Your task to perform on an android device: turn off location history Image 0: 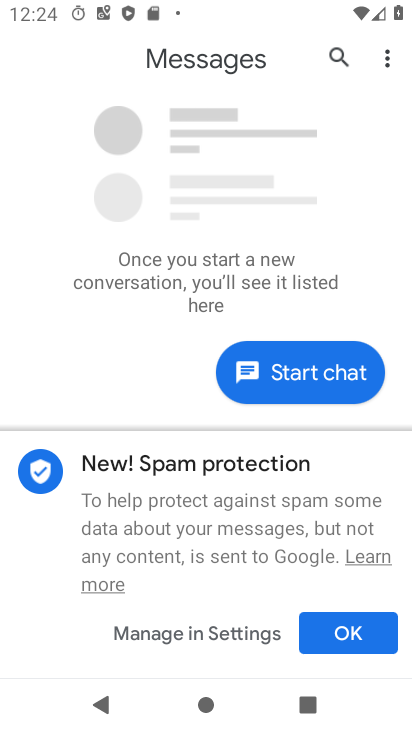
Step 0: press home button
Your task to perform on an android device: turn off location history Image 1: 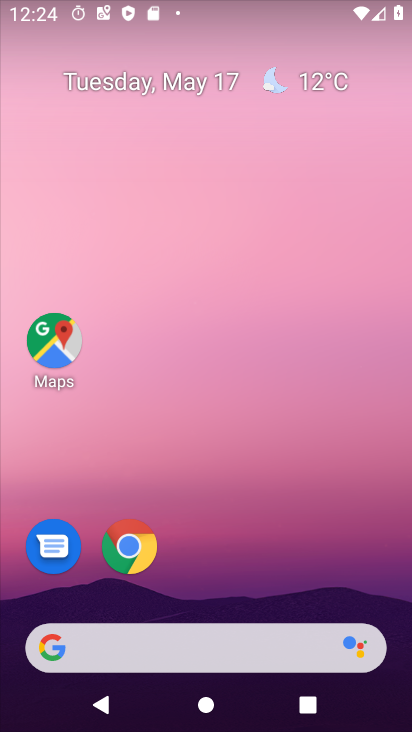
Step 1: click (66, 358)
Your task to perform on an android device: turn off location history Image 2: 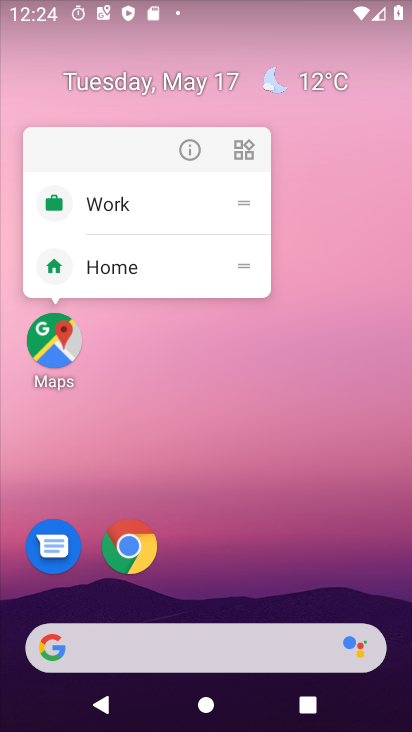
Step 2: click (55, 345)
Your task to perform on an android device: turn off location history Image 3: 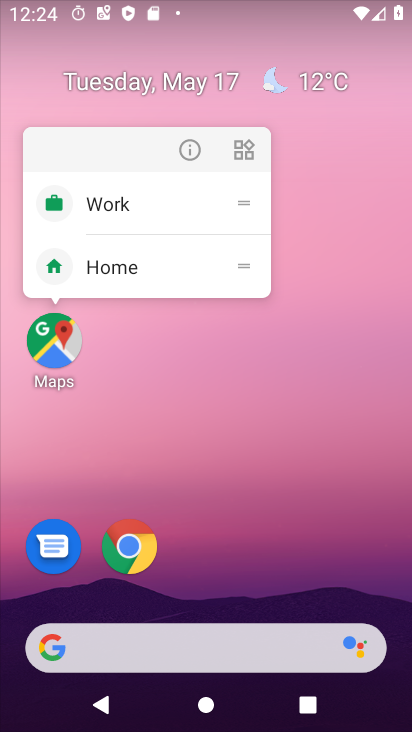
Step 3: click (50, 351)
Your task to perform on an android device: turn off location history Image 4: 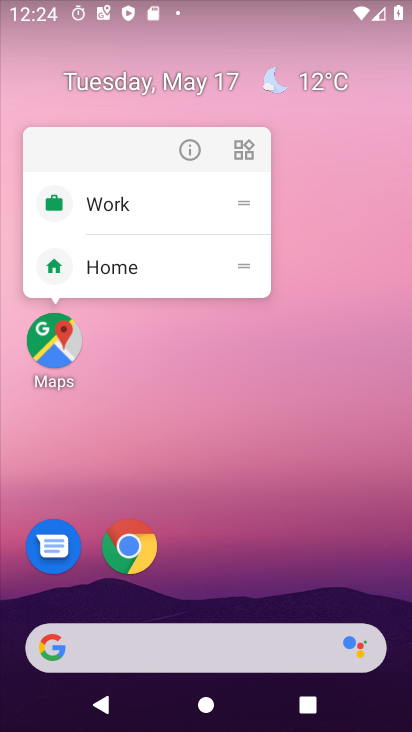
Step 4: click (57, 352)
Your task to perform on an android device: turn off location history Image 5: 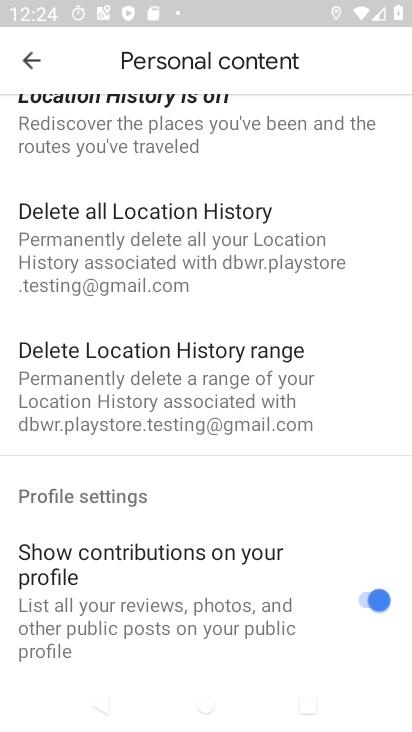
Step 5: drag from (310, 232) to (152, 603)
Your task to perform on an android device: turn off location history Image 6: 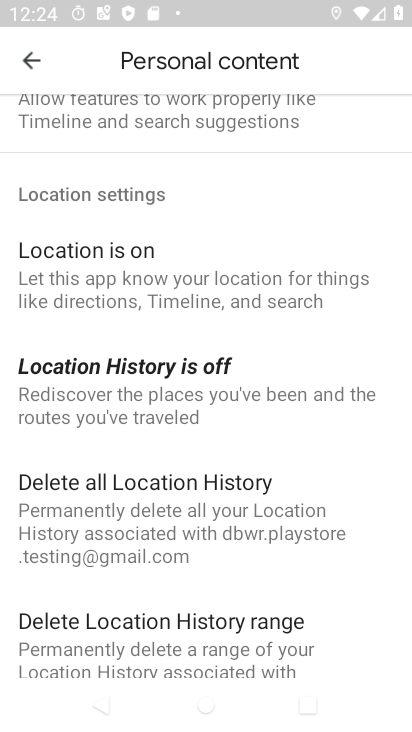
Step 6: click (107, 389)
Your task to perform on an android device: turn off location history Image 7: 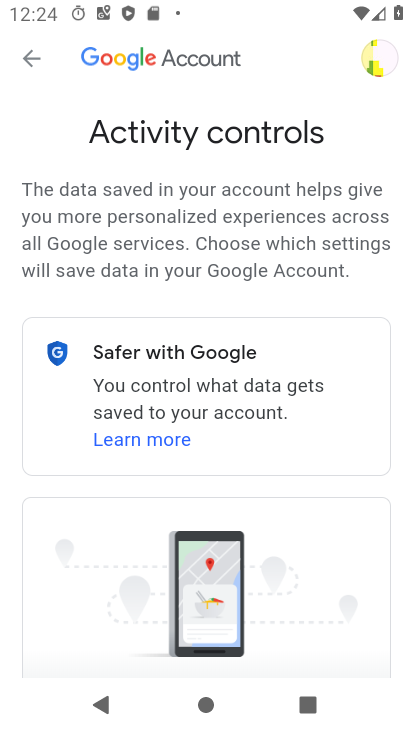
Step 7: drag from (307, 565) to (343, 35)
Your task to perform on an android device: turn off location history Image 8: 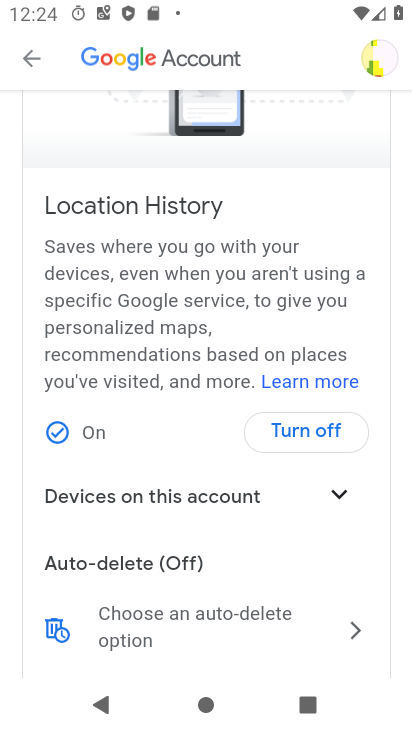
Step 8: click (311, 423)
Your task to perform on an android device: turn off location history Image 9: 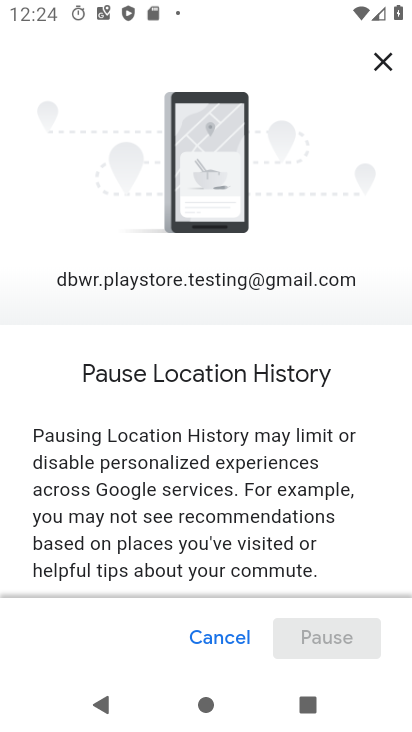
Step 9: drag from (224, 522) to (293, 114)
Your task to perform on an android device: turn off location history Image 10: 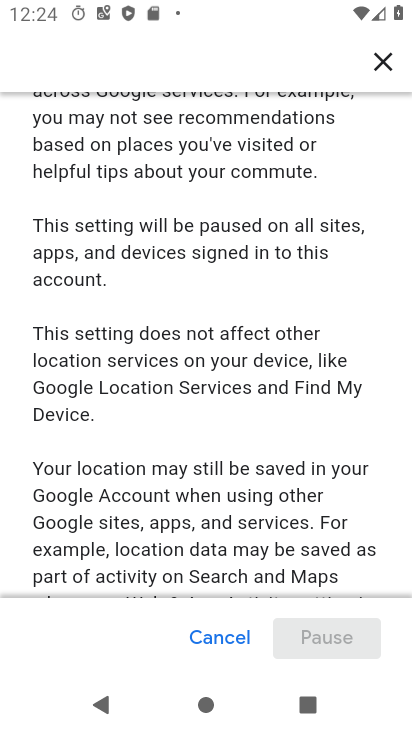
Step 10: drag from (309, 490) to (288, 26)
Your task to perform on an android device: turn off location history Image 11: 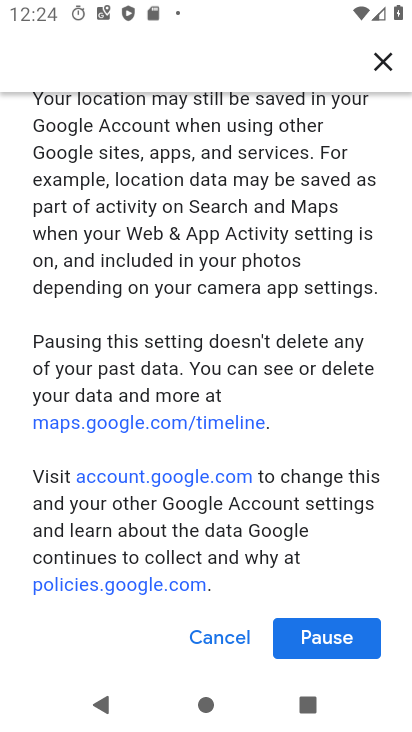
Step 11: click (322, 643)
Your task to perform on an android device: turn off location history Image 12: 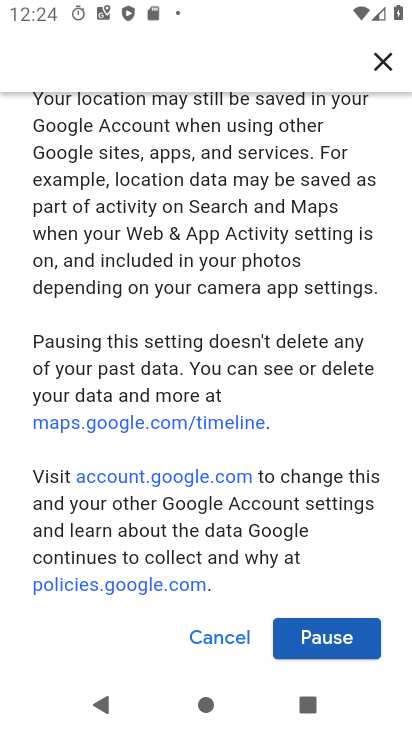
Step 12: click (334, 639)
Your task to perform on an android device: turn off location history Image 13: 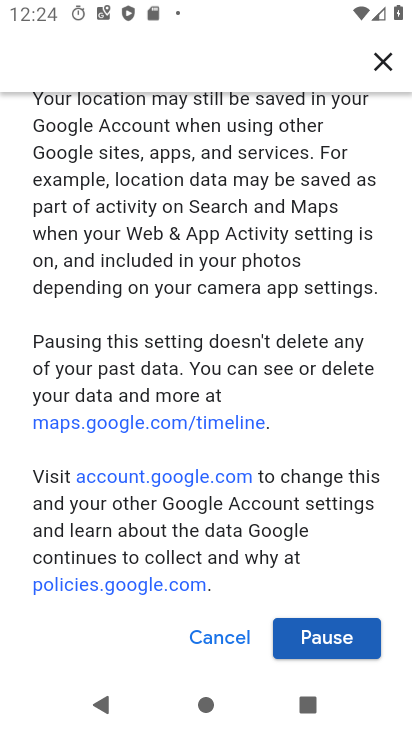
Step 13: click (320, 642)
Your task to perform on an android device: turn off location history Image 14: 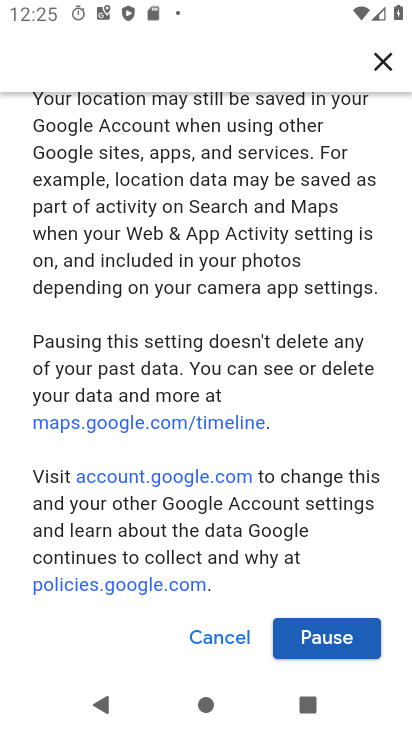
Step 14: click (332, 640)
Your task to perform on an android device: turn off location history Image 15: 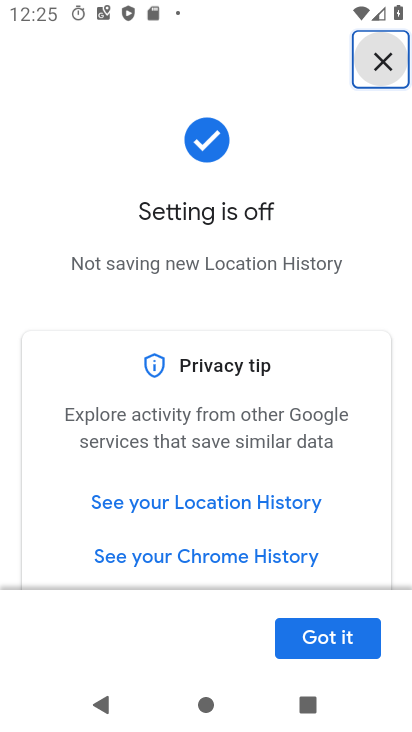
Step 15: click (337, 639)
Your task to perform on an android device: turn off location history Image 16: 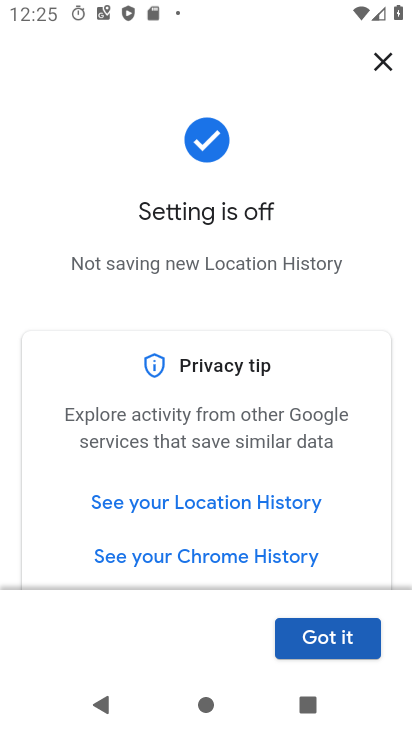
Step 16: click (326, 644)
Your task to perform on an android device: turn off location history Image 17: 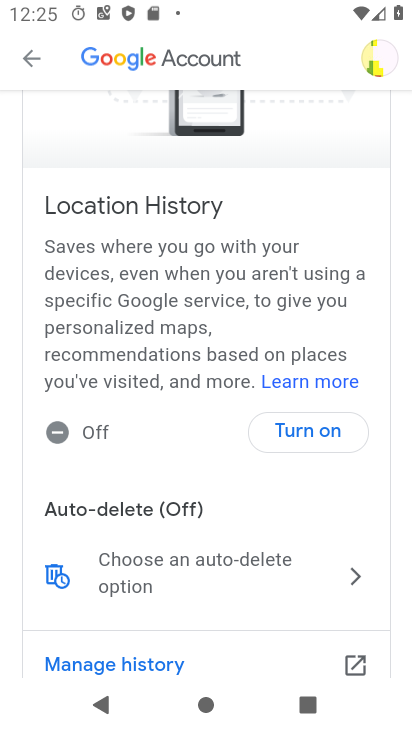
Step 17: task complete